Your task to perform on an android device: clear all cookies in the chrome app Image 0: 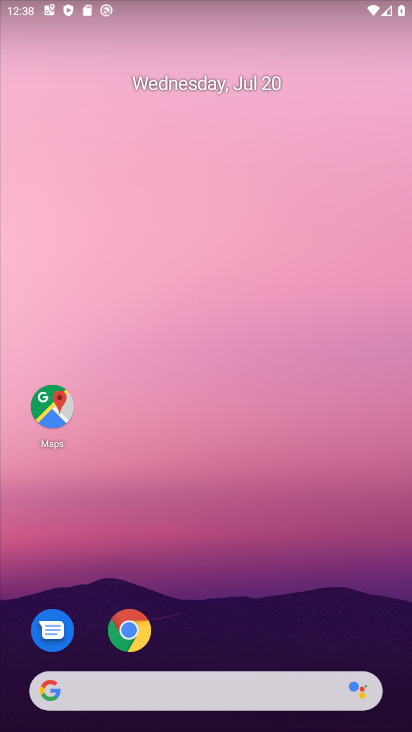
Step 0: click (141, 634)
Your task to perform on an android device: clear all cookies in the chrome app Image 1: 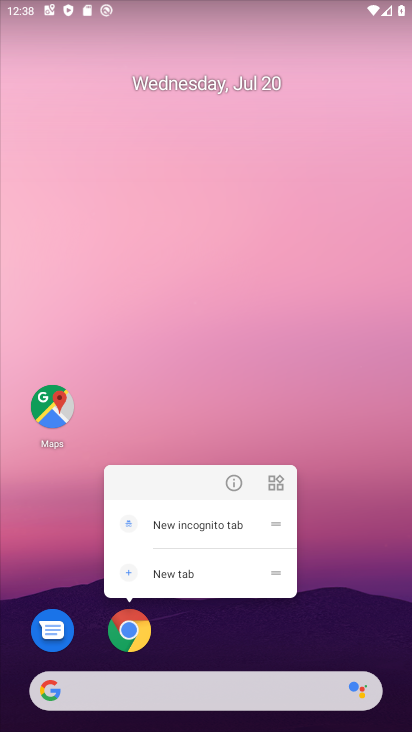
Step 1: click (118, 629)
Your task to perform on an android device: clear all cookies in the chrome app Image 2: 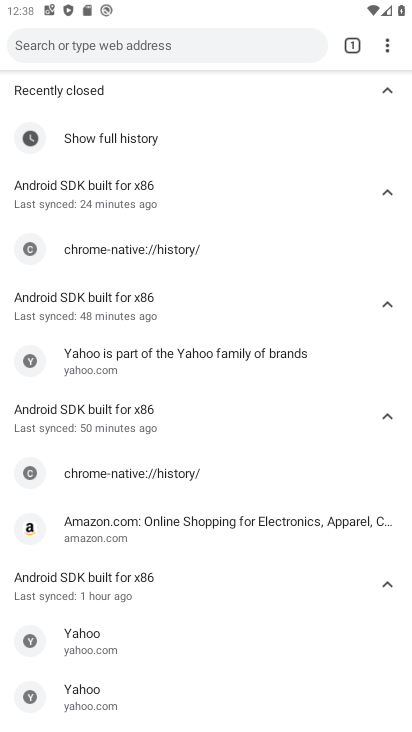
Step 2: drag from (388, 42) to (201, 382)
Your task to perform on an android device: clear all cookies in the chrome app Image 3: 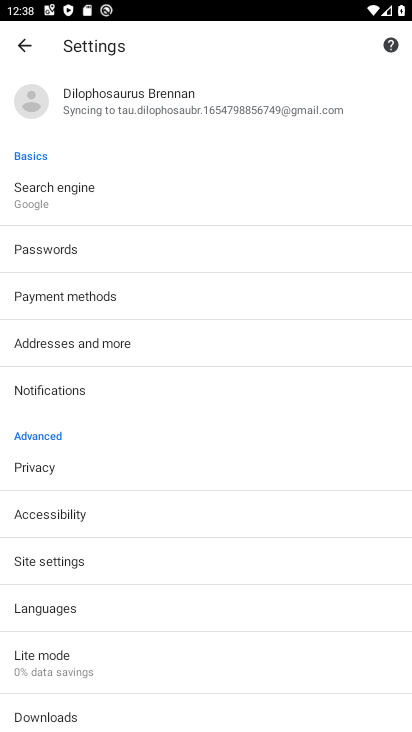
Step 3: click (59, 455)
Your task to perform on an android device: clear all cookies in the chrome app Image 4: 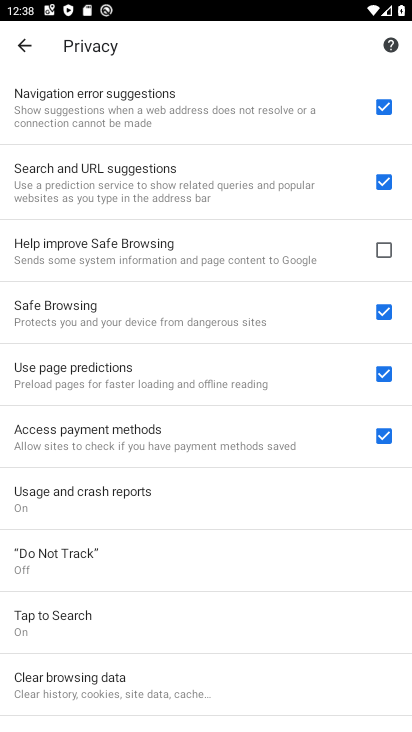
Step 4: click (99, 688)
Your task to perform on an android device: clear all cookies in the chrome app Image 5: 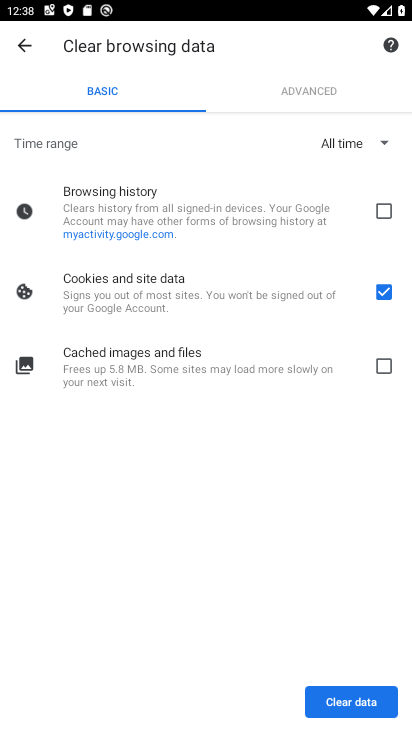
Step 5: click (370, 701)
Your task to perform on an android device: clear all cookies in the chrome app Image 6: 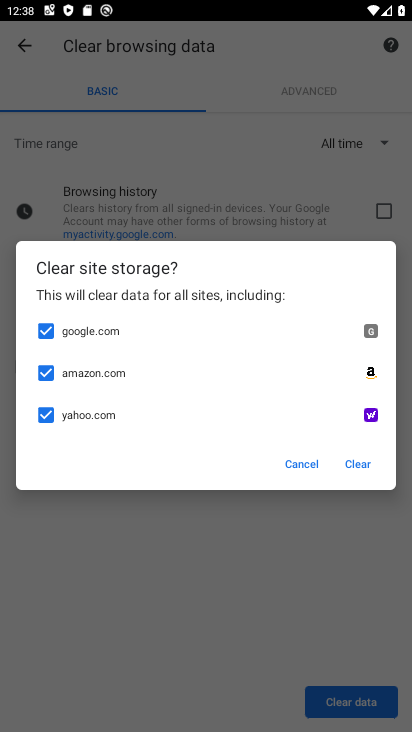
Step 6: click (360, 461)
Your task to perform on an android device: clear all cookies in the chrome app Image 7: 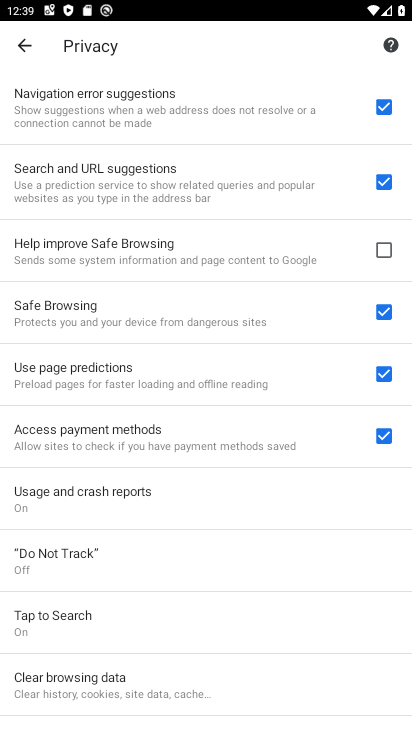
Step 7: task complete